Your task to perform on an android device: turn off javascript in the chrome app Image 0: 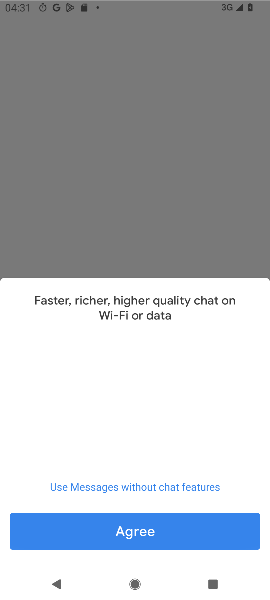
Step 0: press home button
Your task to perform on an android device: turn off javascript in the chrome app Image 1: 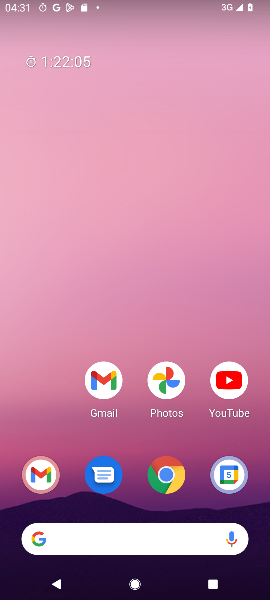
Step 1: drag from (60, 423) to (58, 172)
Your task to perform on an android device: turn off javascript in the chrome app Image 2: 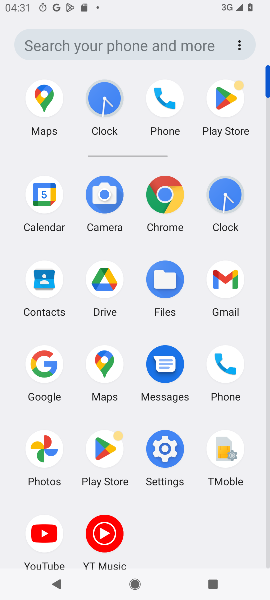
Step 2: click (171, 193)
Your task to perform on an android device: turn off javascript in the chrome app Image 3: 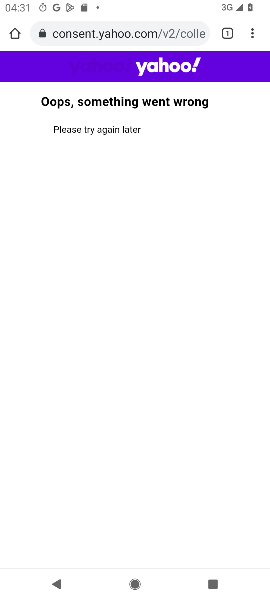
Step 3: click (252, 35)
Your task to perform on an android device: turn off javascript in the chrome app Image 4: 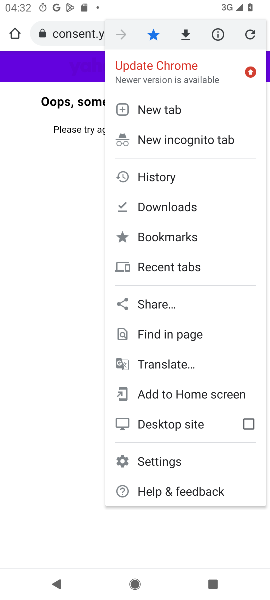
Step 4: click (188, 462)
Your task to perform on an android device: turn off javascript in the chrome app Image 5: 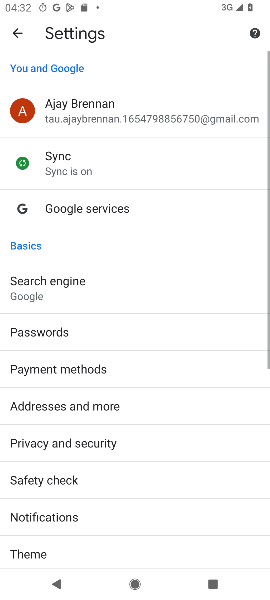
Step 5: drag from (189, 459) to (210, 380)
Your task to perform on an android device: turn off javascript in the chrome app Image 6: 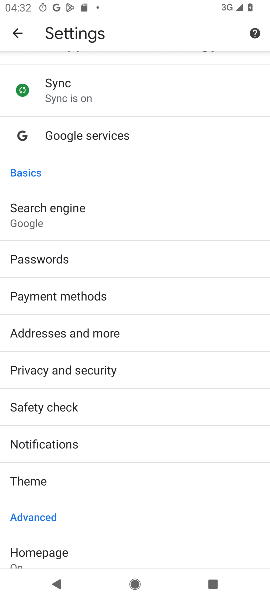
Step 6: drag from (198, 460) to (210, 376)
Your task to perform on an android device: turn off javascript in the chrome app Image 7: 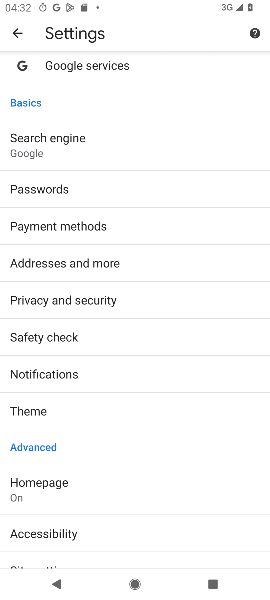
Step 7: drag from (203, 466) to (208, 379)
Your task to perform on an android device: turn off javascript in the chrome app Image 8: 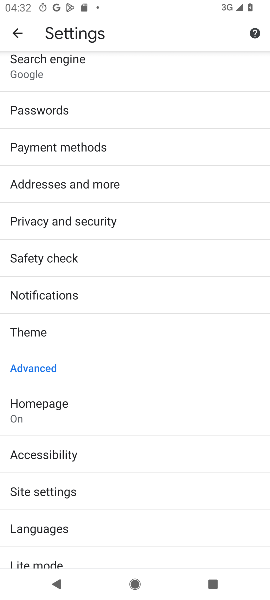
Step 8: drag from (198, 473) to (201, 405)
Your task to perform on an android device: turn off javascript in the chrome app Image 9: 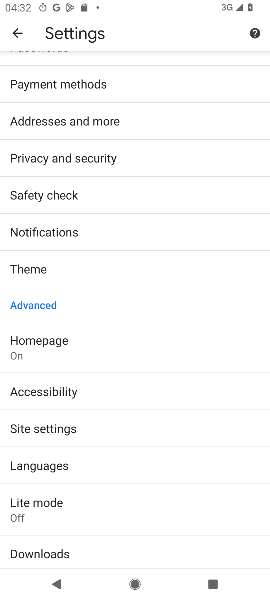
Step 9: drag from (206, 469) to (200, 368)
Your task to perform on an android device: turn off javascript in the chrome app Image 10: 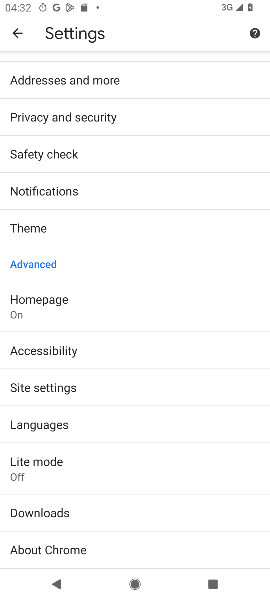
Step 10: click (182, 390)
Your task to perform on an android device: turn off javascript in the chrome app Image 11: 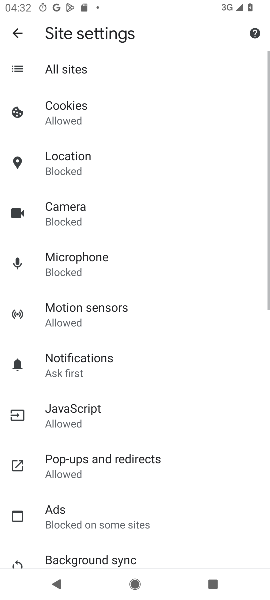
Step 11: drag from (182, 381) to (187, 326)
Your task to perform on an android device: turn off javascript in the chrome app Image 12: 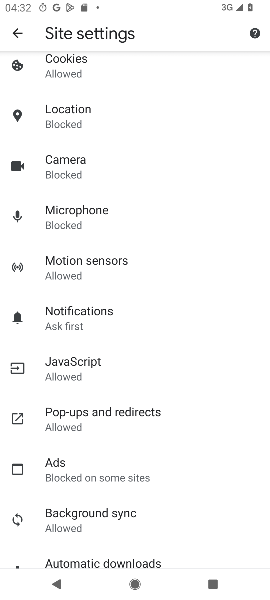
Step 12: drag from (221, 420) to (221, 360)
Your task to perform on an android device: turn off javascript in the chrome app Image 13: 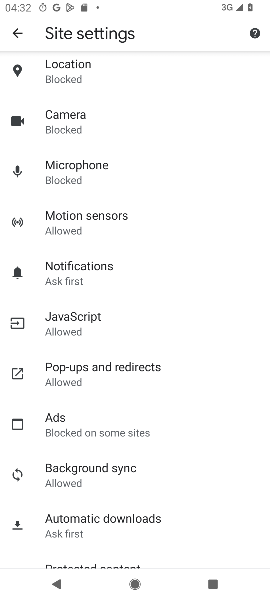
Step 13: drag from (213, 404) to (218, 285)
Your task to perform on an android device: turn off javascript in the chrome app Image 14: 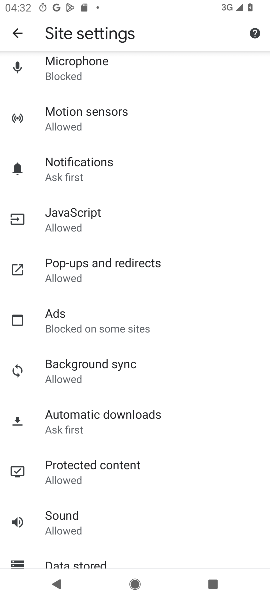
Step 14: click (116, 216)
Your task to perform on an android device: turn off javascript in the chrome app Image 15: 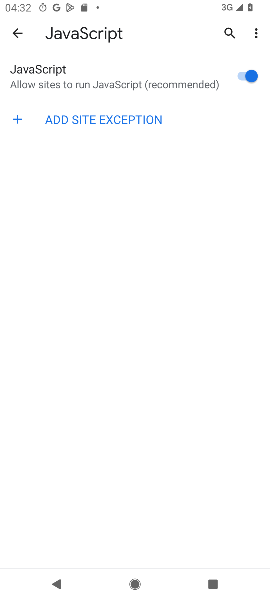
Step 15: click (246, 74)
Your task to perform on an android device: turn off javascript in the chrome app Image 16: 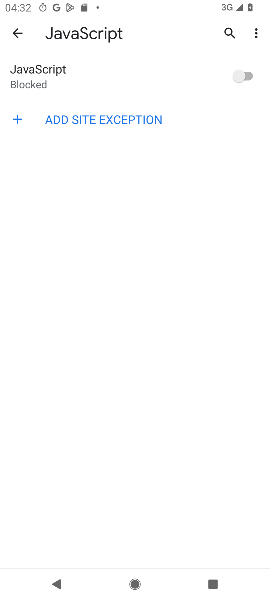
Step 16: task complete